Your task to perform on an android device: turn on priority inbox in the gmail app Image 0: 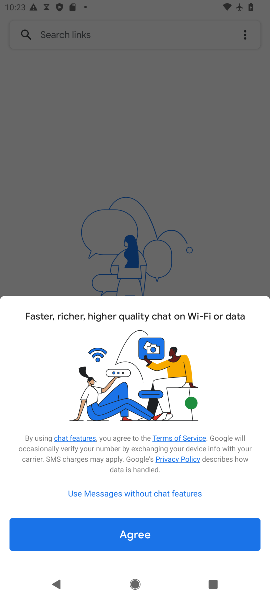
Step 0: press home button
Your task to perform on an android device: turn on priority inbox in the gmail app Image 1: 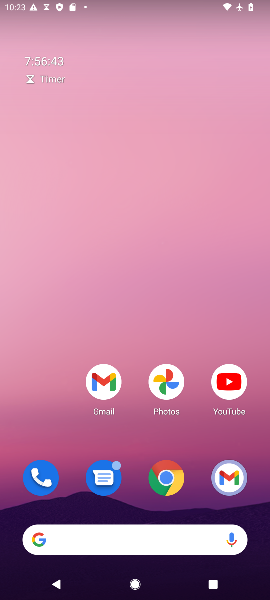
Step 1: drag from (202, 450) to (171, 97)
Your task to perform on an android device: turn on priority inbox in the gmail app Image 2: 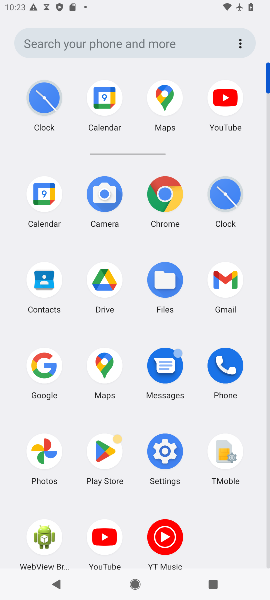
Step 2: click (220, 280)
Your task to perform on an android device: turn on priority inbox in the gmail app Image 3: 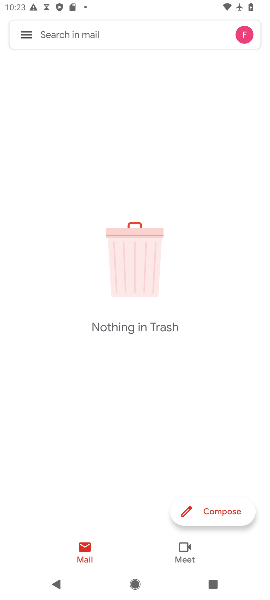
Step 3: click (25, 37)
Your task to perform on an android device: turn on priority inbox in the gmail app Image 4: 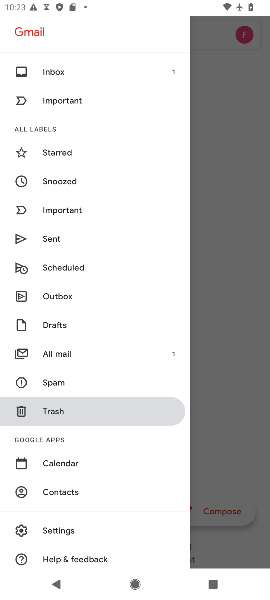
Step 4: click (93, 537)
Your task to perform on an android device: turn on priority inbox in the gmail app Image 5: 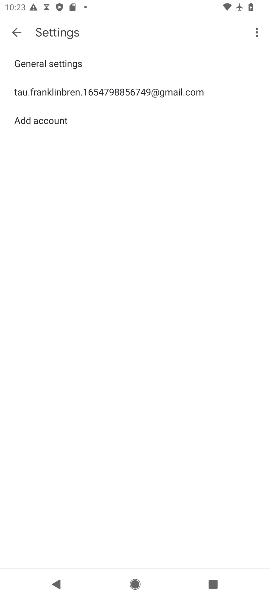
Step 5: click (116, 96)
Your task to perform on an android device: turn on priority inbox in the gmail app Image 6: 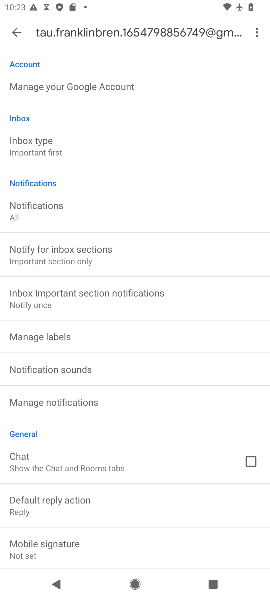
Step 6: drag from (137, 539) to (90, 410)
Your task to perform on an android device: turn on priority inbox in the gmail app Image 7: 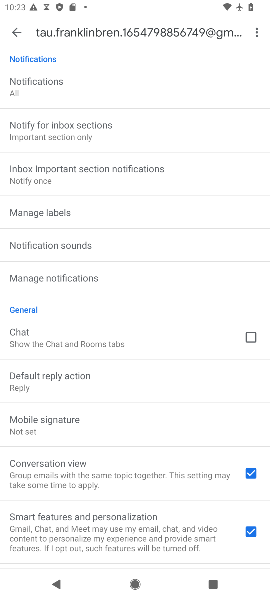
Step 7: drag from (73, 131) to (103, 555)
Your task to perform on an android device: turn on priority inbox in the gmail app Image 8: 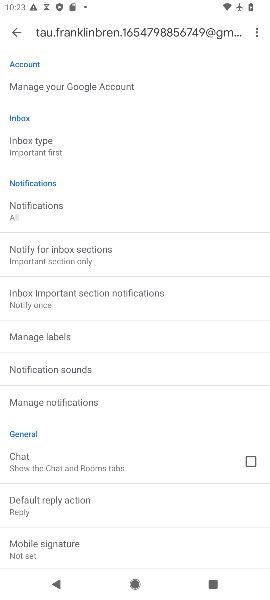
Step 8: click (56, 143)
Your task to perform on an android device: turn on priority inbox in the gmail app Image 9: 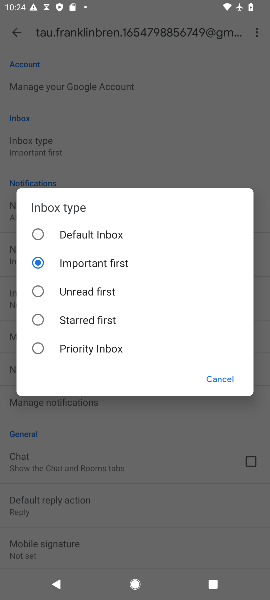
Step 9: click (107, 349)
Your task to perform on an android device: turn on priority inbox in the gmail app Image 10: 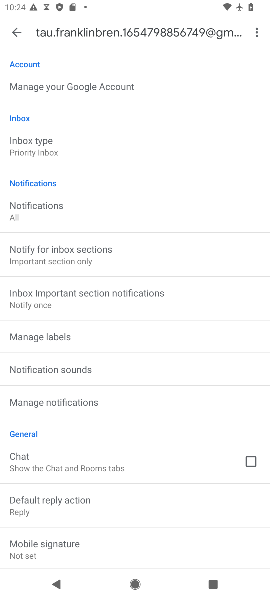
Step 10: task complete